Your task to perform on an android device: delete location history Image 0: 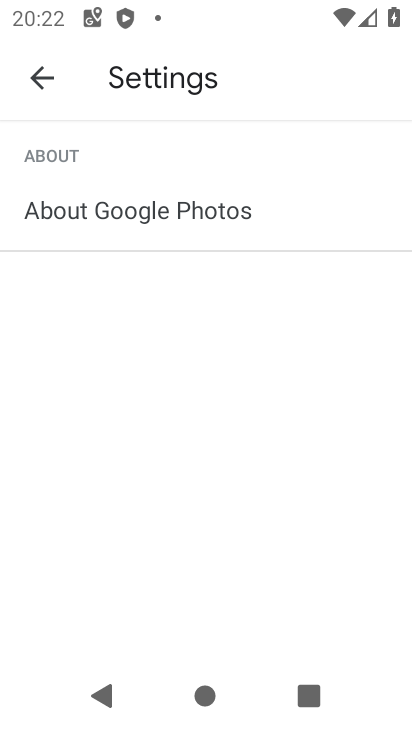
Step 0: press home button
Your task to perform on an android device: delete location history Image 1: 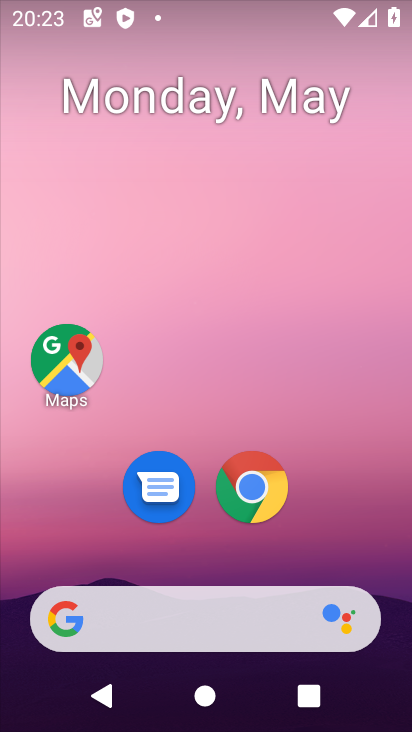
Step 1: drag from (375, 452) to (370, 233)
Your task to perform on an android device: delete location history Image 2: 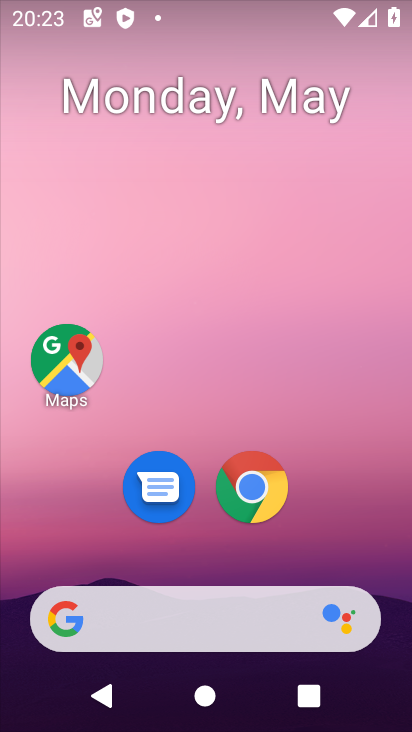
Step 2: drag from (388, 551) to (371, 146)
Your task to perform on an android device: delete location history Image 3: 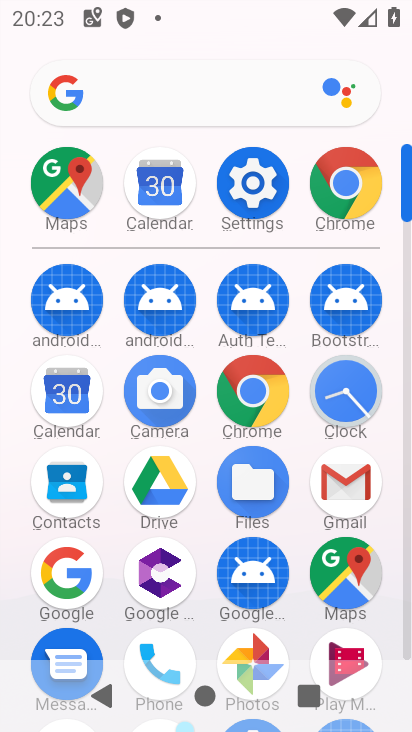
Step 3: click (357, 577)
Your task to perform on an android device: delete location history Image 4: 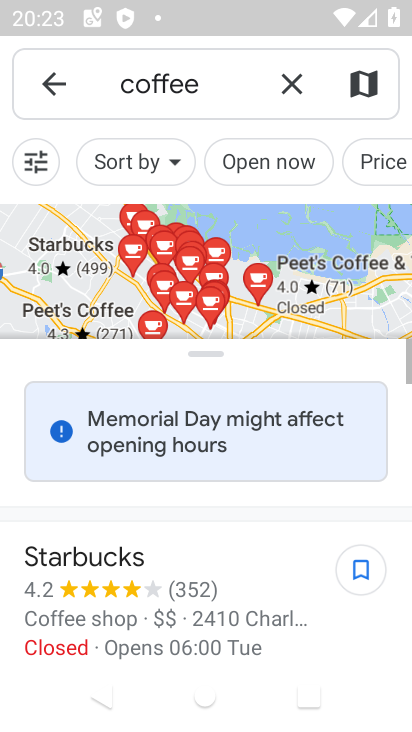
Step 4: press back button
Your task to perform on an android device: delete location history Image 5: 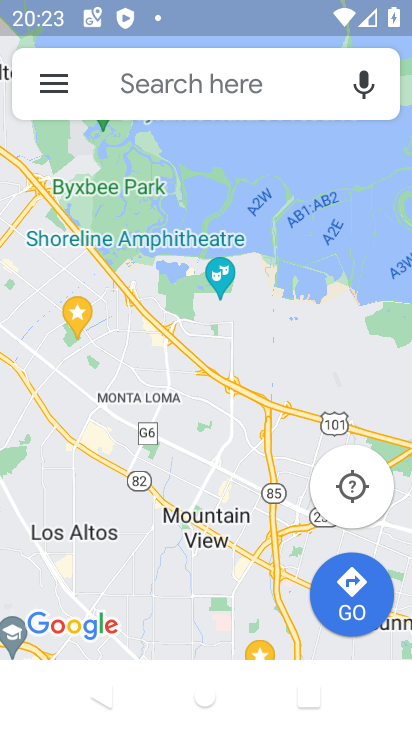
Step 5: click (55, 83)
Your task to perform on an android device: delete location history Image 6: 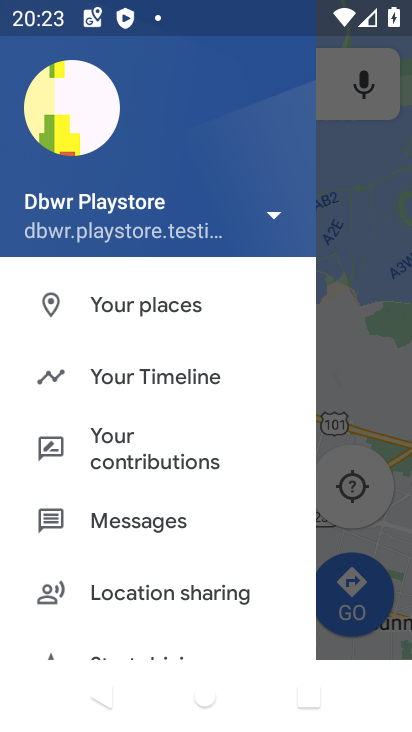
Step 6: click (179, 380)
Your task to perform on an android device: delete location history Image 7: 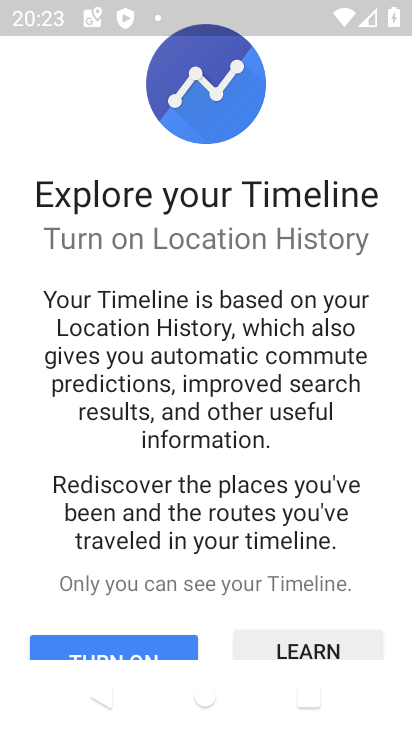
Step 7: drag from (329, 552) to (348, 366)
Your task to perform on an android device: delete location history Image 8: 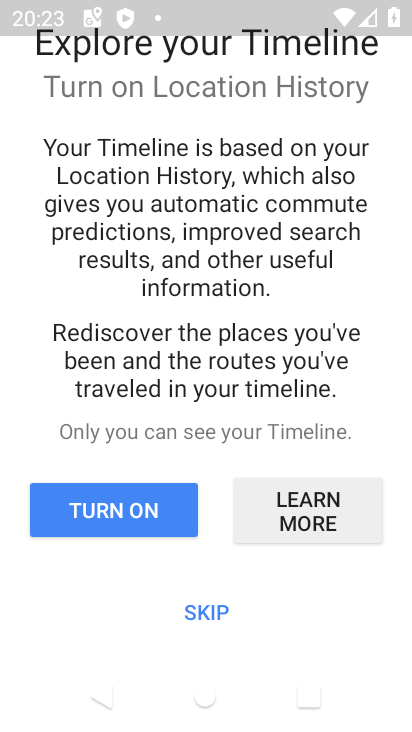
Step 8: click (219, 614)
Your task to perform on an android device: delete location history Image 9: 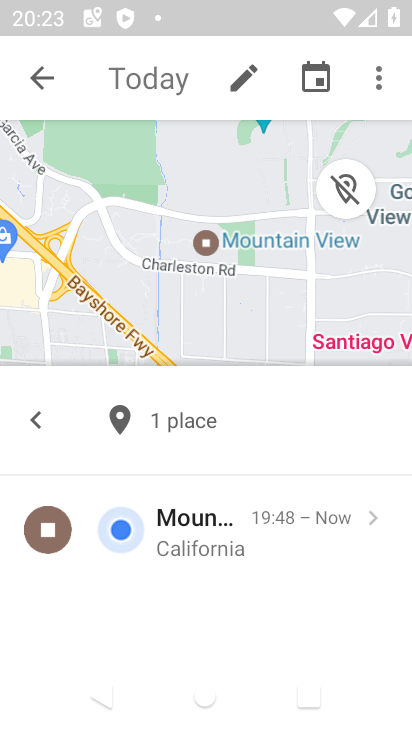
Step 9: click (377, 85)
Your task to perform on an android device: delete location history Image 10: 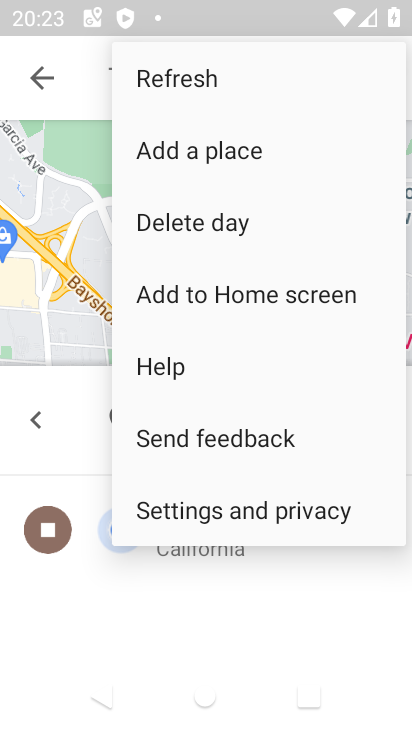
Step 10: click (265, 512)
Your task to perform on an android device: delete location history Image 11: 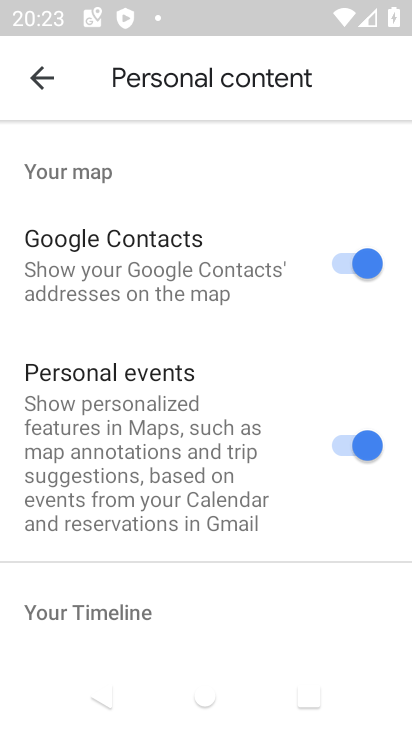
Step 11: drag from (302, 577) to (318, 480)
Your task to perform on an android device: delete location history Image 12: 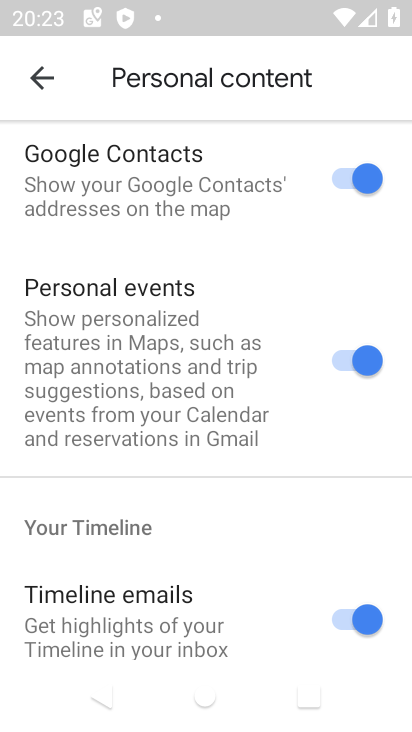
Step 12: drag from (285, 592) to (294, 488)
Your task to perform on an android device: delete location history Image 13: 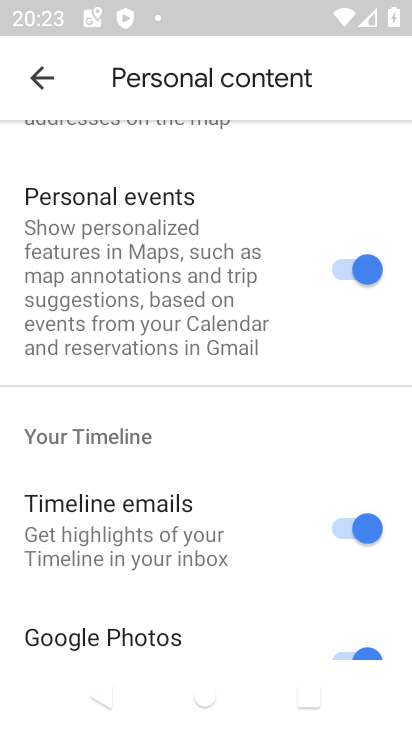
Step 13: drag from (292, 615) to (298, 411)
Your task to perform on an android device: delete location history Image 14: 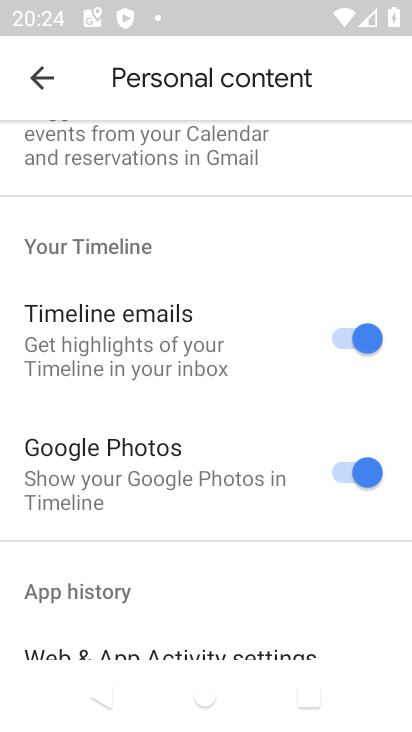
Step 14: drag from (269, 593) to (271, 495)
Your task to perform on an android device: delete location history Image 15: 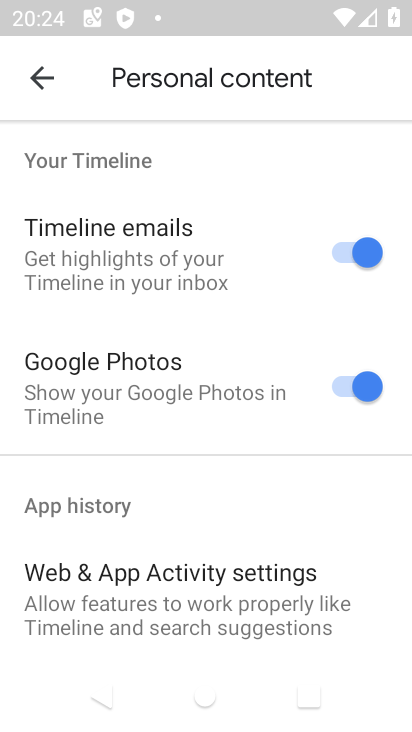
Step 15: drag from (271, 623) to (294, 492)
Your task to perform on an android device: delete location history Image 16: 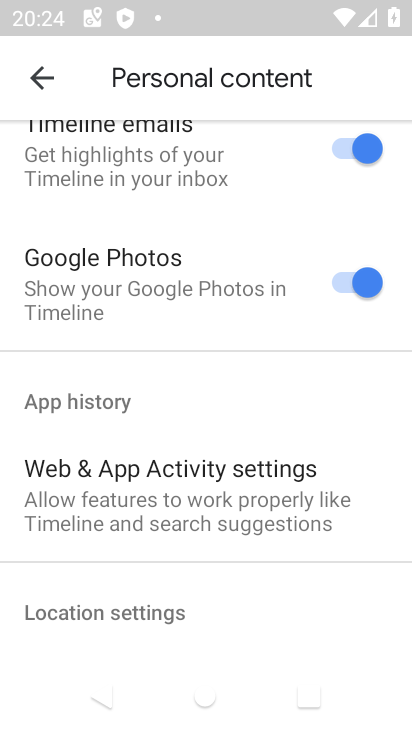
Step 16: drag from (314, 605) to (322, 519)
Your task to perform on an android device: delete location history Image 17: 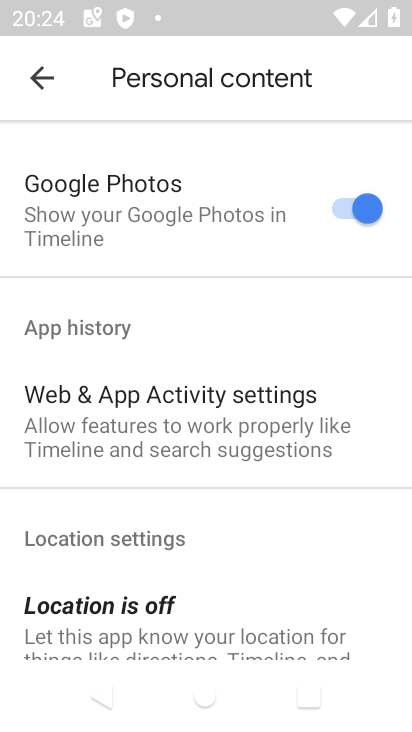
Step 17: drag from (315, 621) to (330, 502)
Your task to perform on an android device: delete location history Image 18: 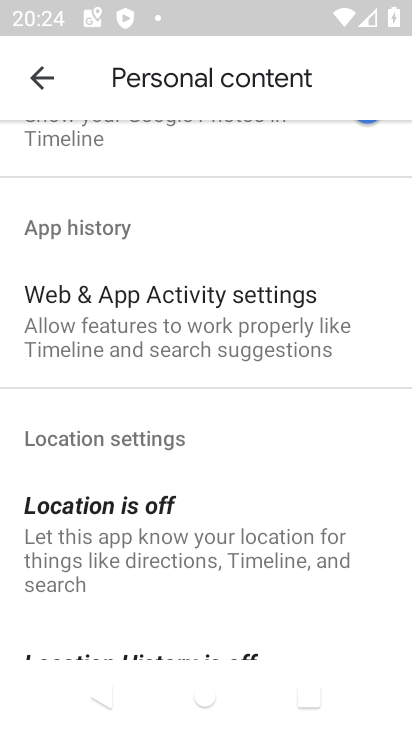
Step 18: drag from (316, 612) to (330, 517)
Your task to perform on an android device: delete location history Image 19: 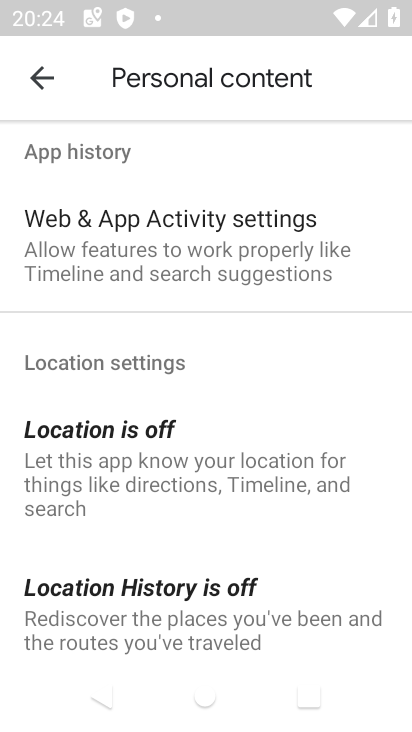
Step 19: drag from (349, 555) to (370, 426)
Your task to perform on an android device: delete location history Image 20: 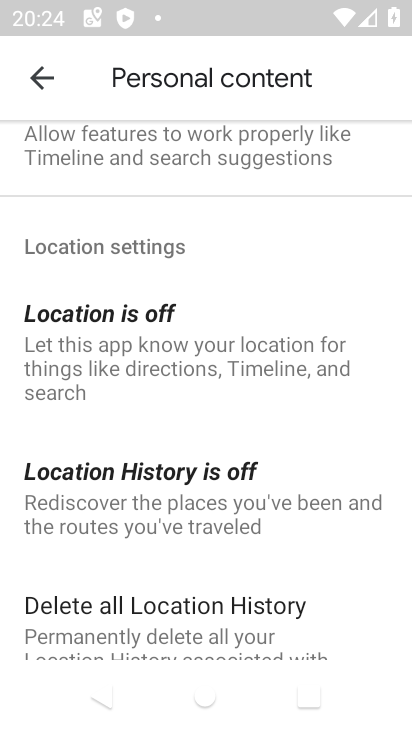
Step 20: drag from (355, 605) to (348, 475)
Your task to perform on an android device: delete location history Image 21: 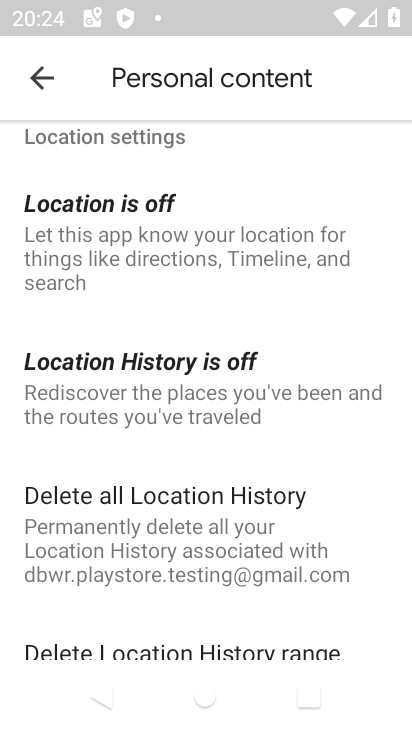
Step 21: click (203, 538)
Your task to perform on an android device: delete location history Image 22: 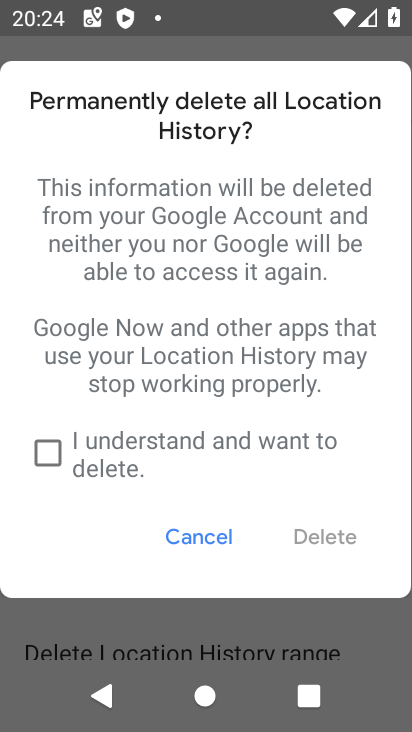
Step 22: click (60, 445)
Your task to perform on an android device: delete location history Image 23: 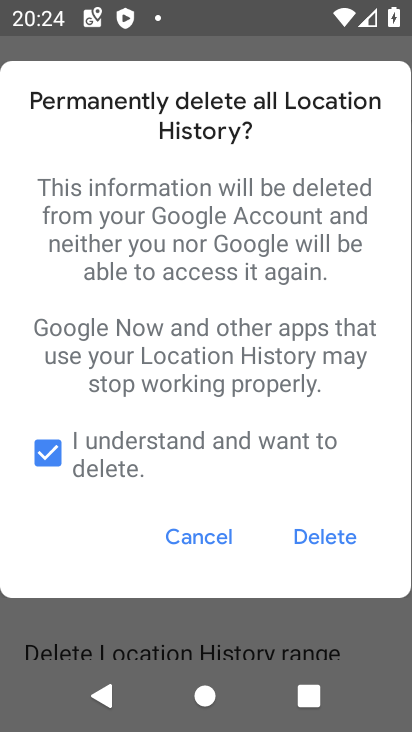
Step 23: click (350, 539)
Your task to perform on an android device: delete location history Image 24: 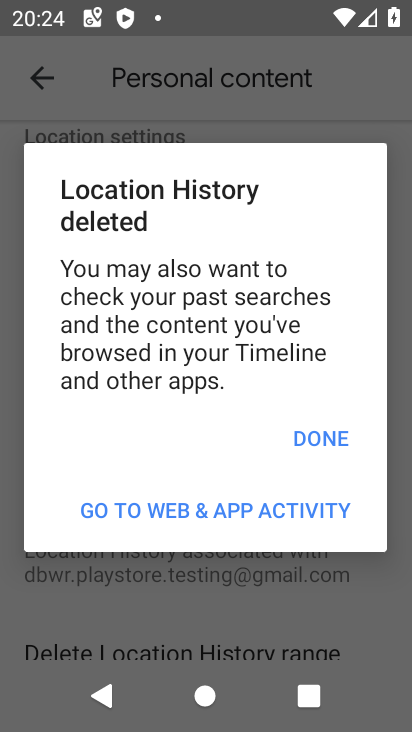
Step 24: click (335, 434)
Your task to perform on an android device: delete location history Image 25: 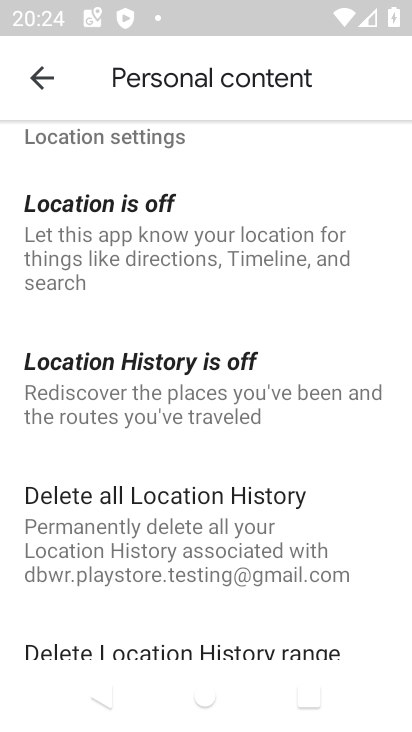
Step 25: task complete